Your task to perform on an android device: find which apps use the phone's location Image 0: 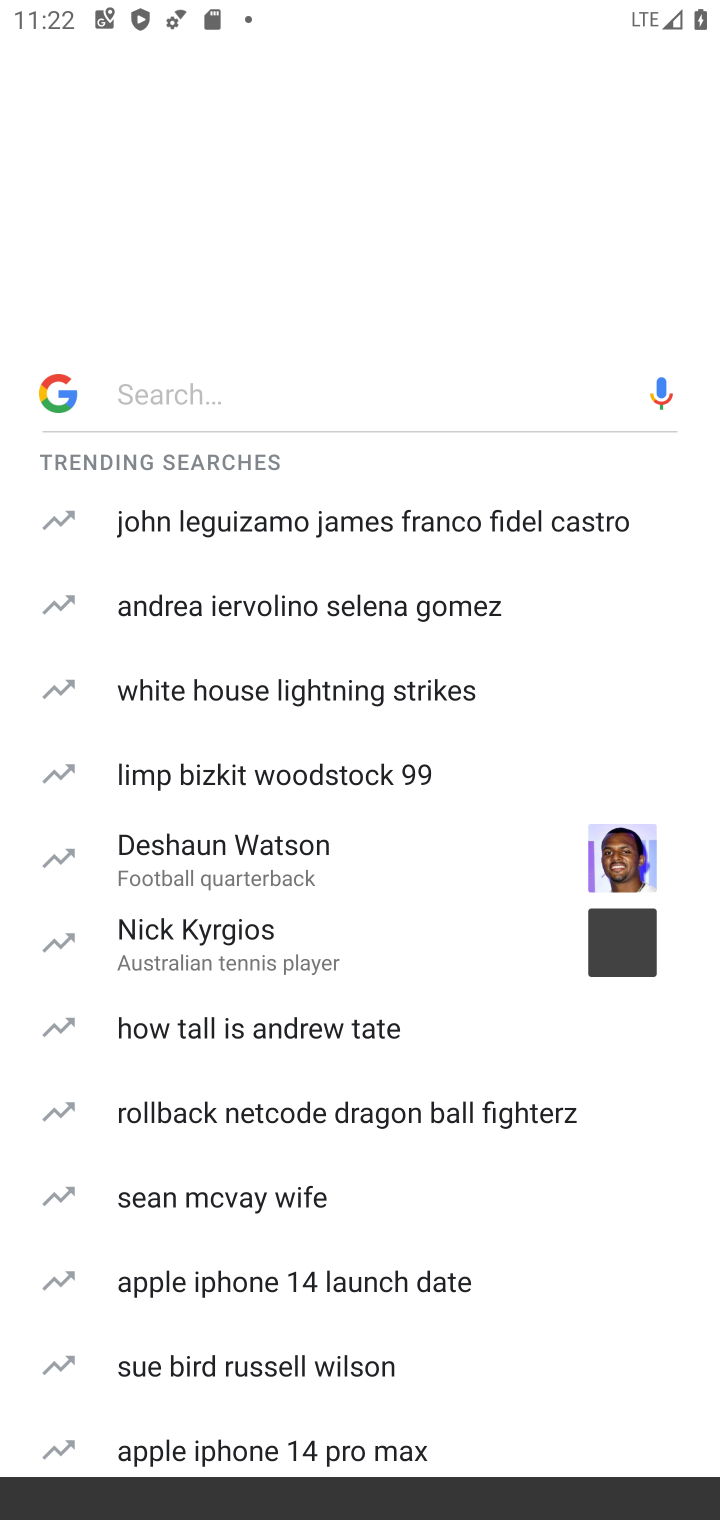
Step 0: press back button
Your task to perform on an android device: find which apps use the phone's location Image 1: 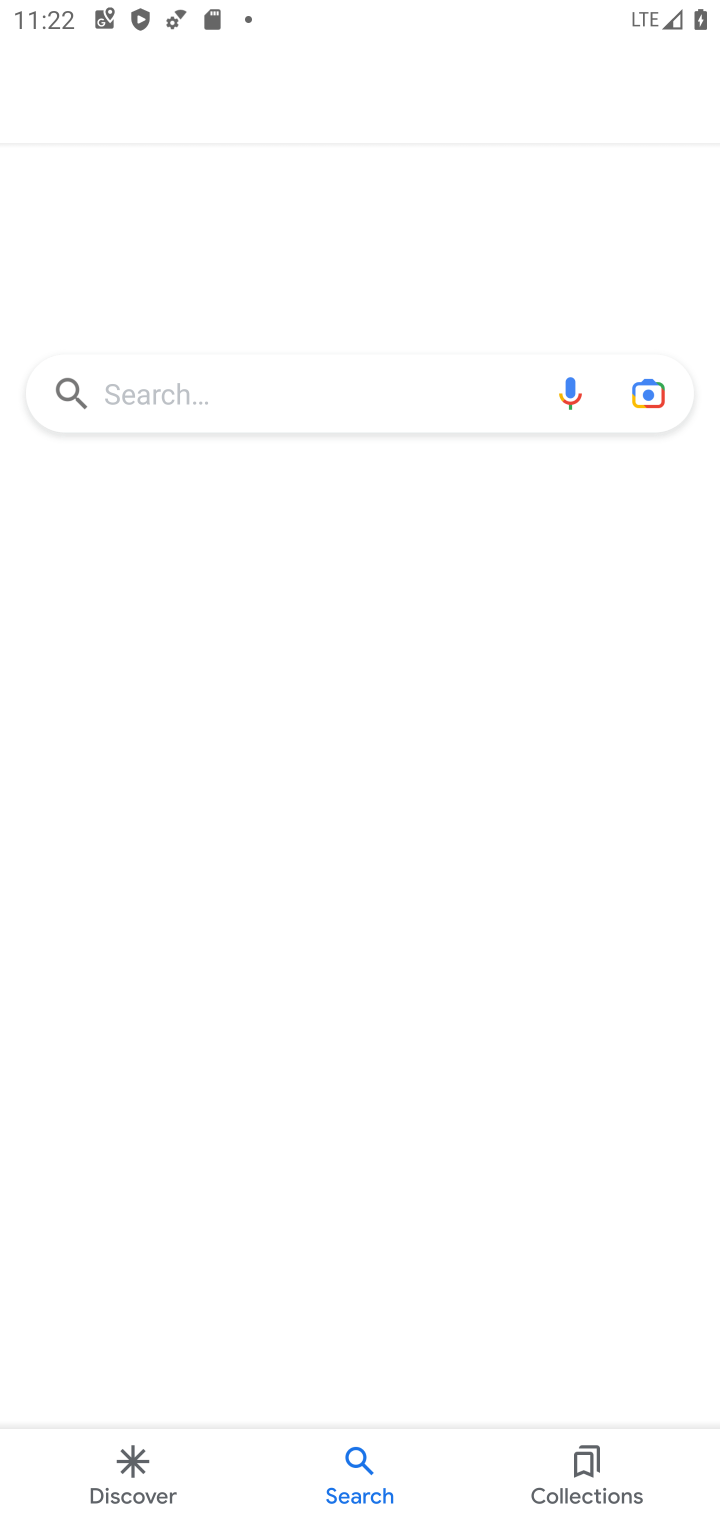
Step 1: press back button
Your task to perform on an android device: find which apps use the phone's location Image 2: 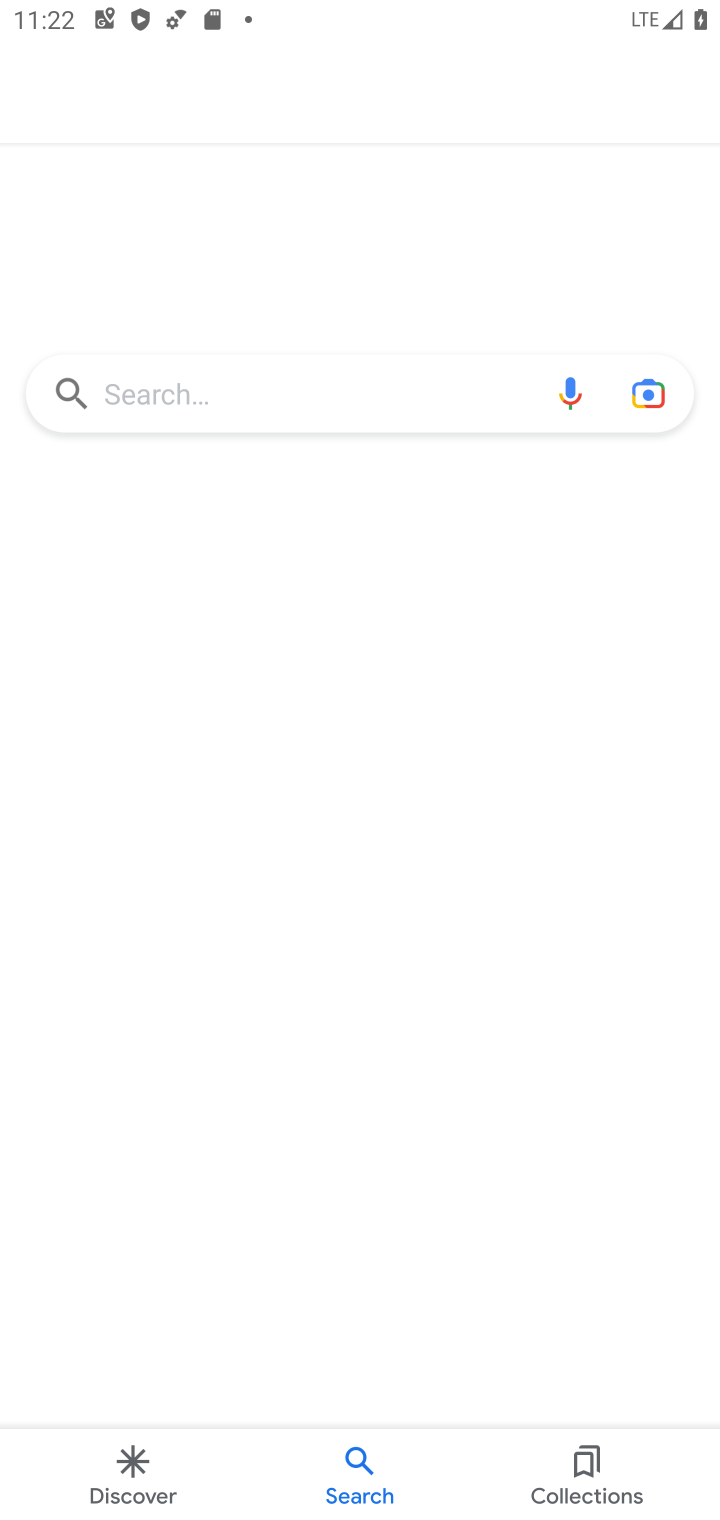
Step 2: press back button
Your task to perform on an android device: find which apps use the phone's location Image 3: 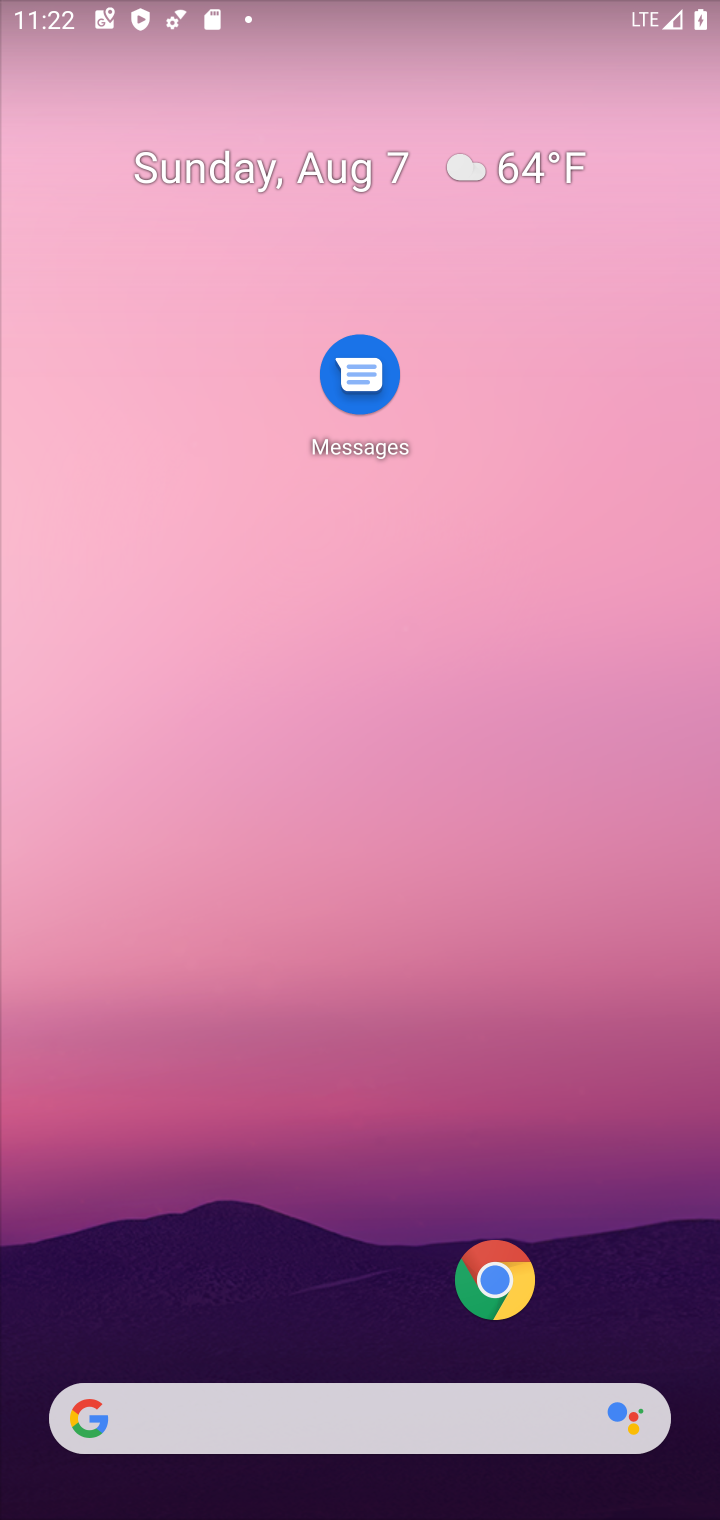
Step 3: drag from (187, 1253) to (380, 84)
Your task to perform on an android device: find which apps use the phone's location Image 4: 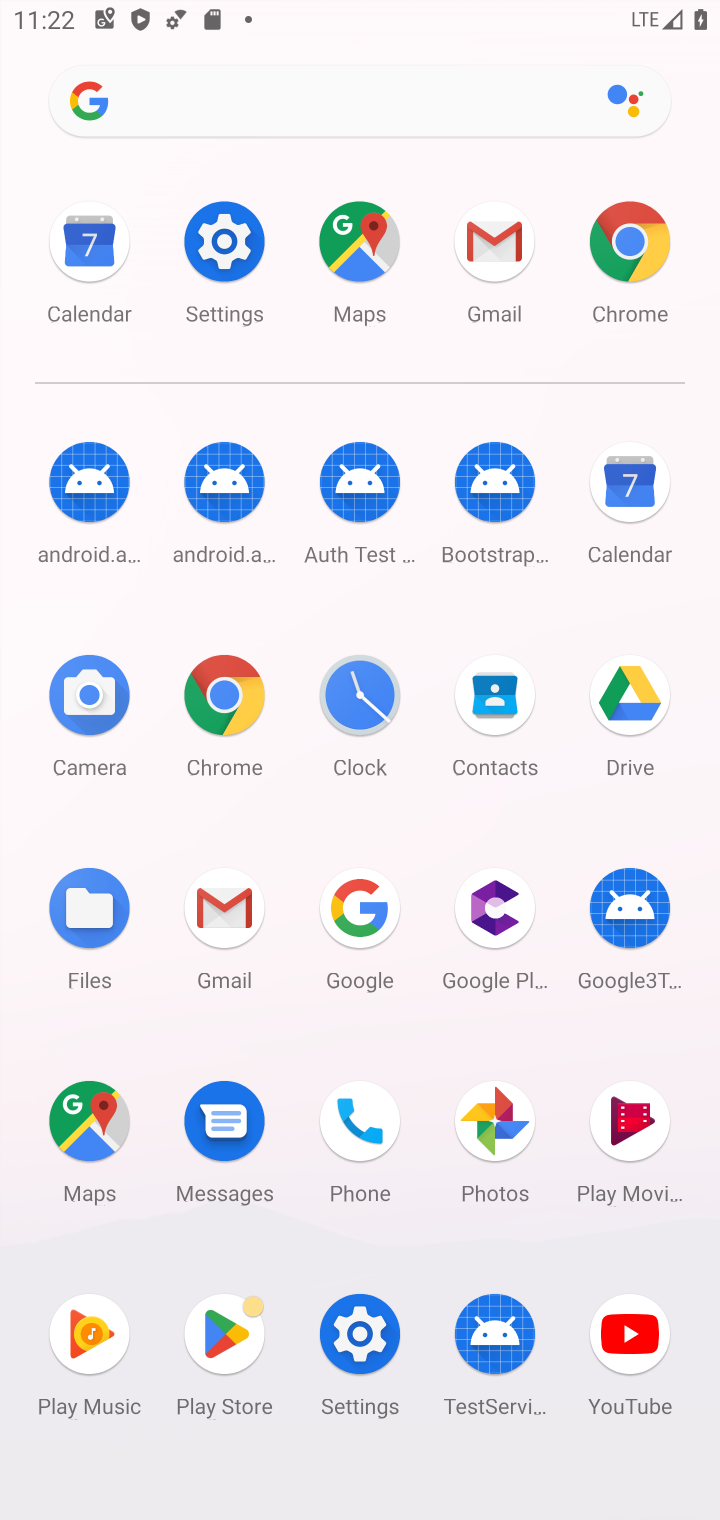
Step 4: click (252, 263)
Your task to perform on an android device: find which apps use the phone's location Image 5: 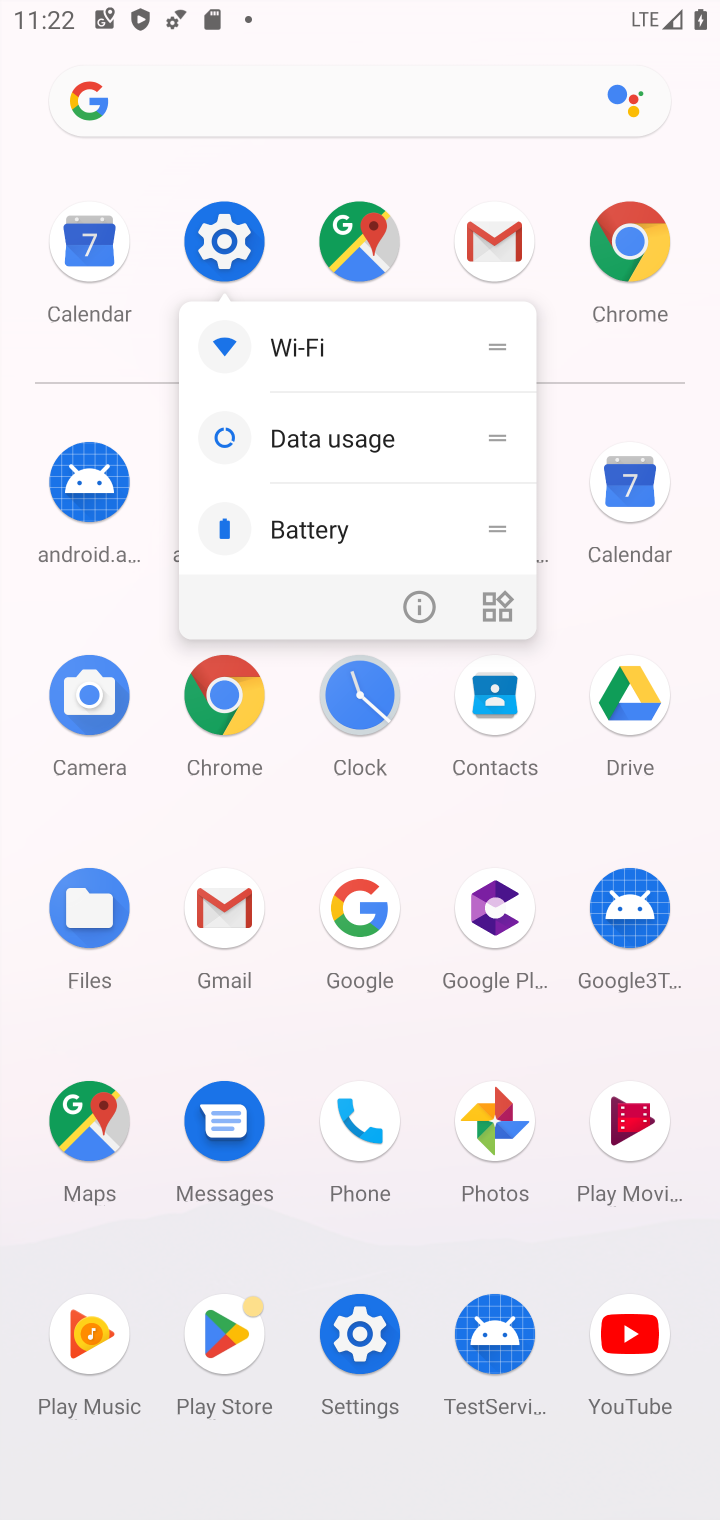
Step 5: click (225, 240)
Your task to perform on an android device: find which apps use the phone's location Image 6: 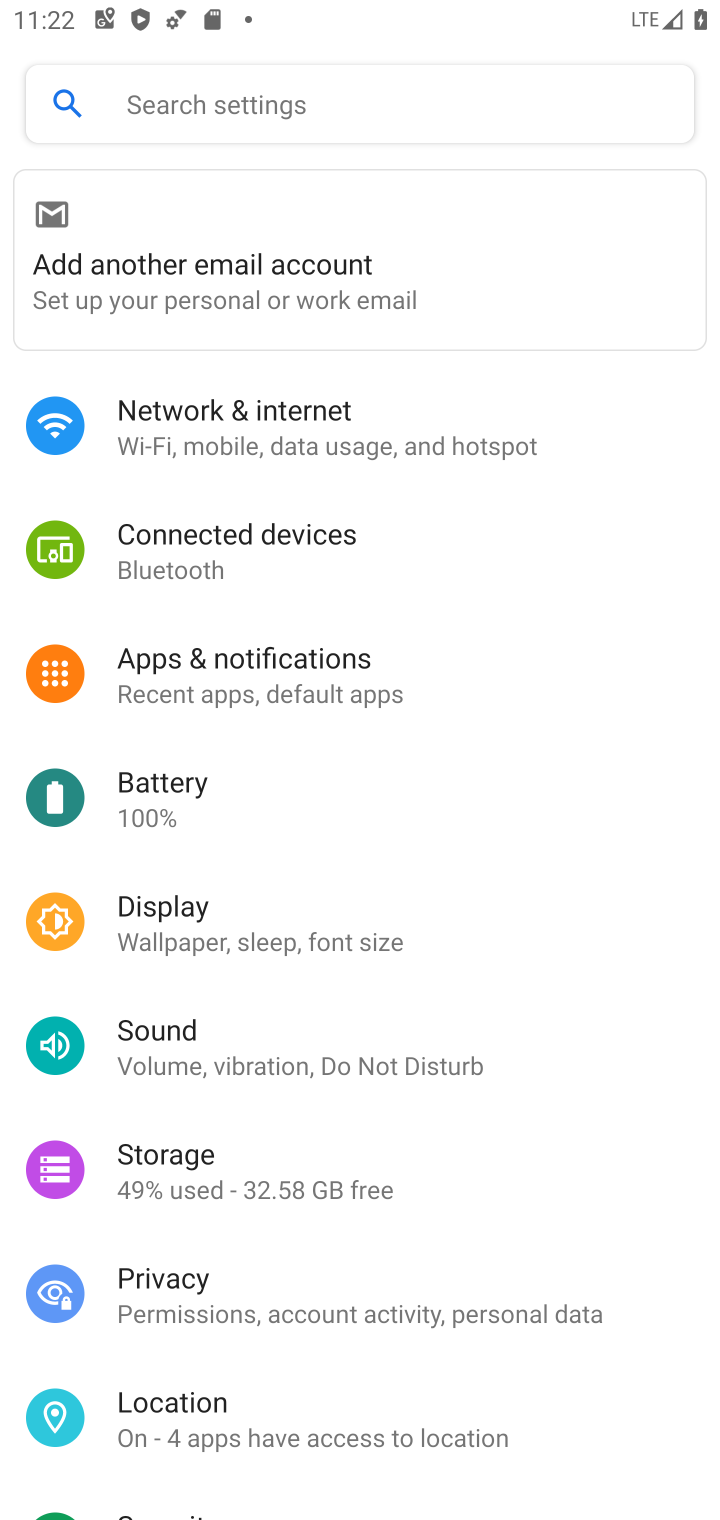
Step 6: click (233, 1403)
Your task to perform on an android device: find which apps use the phone's location Image 7: 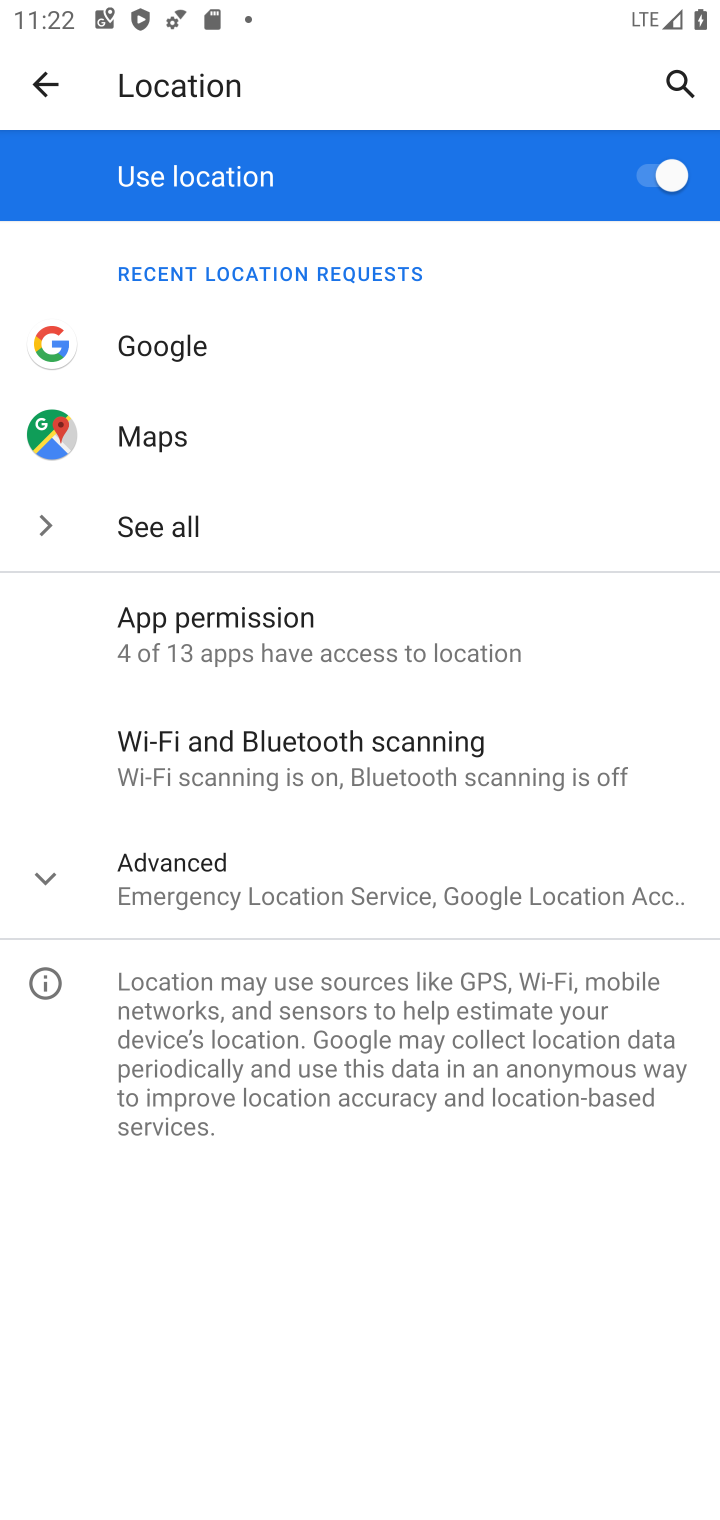
Step 7: click (247, 623)
Your task to perform on an android device: find which apps use the phone's location Image 8: 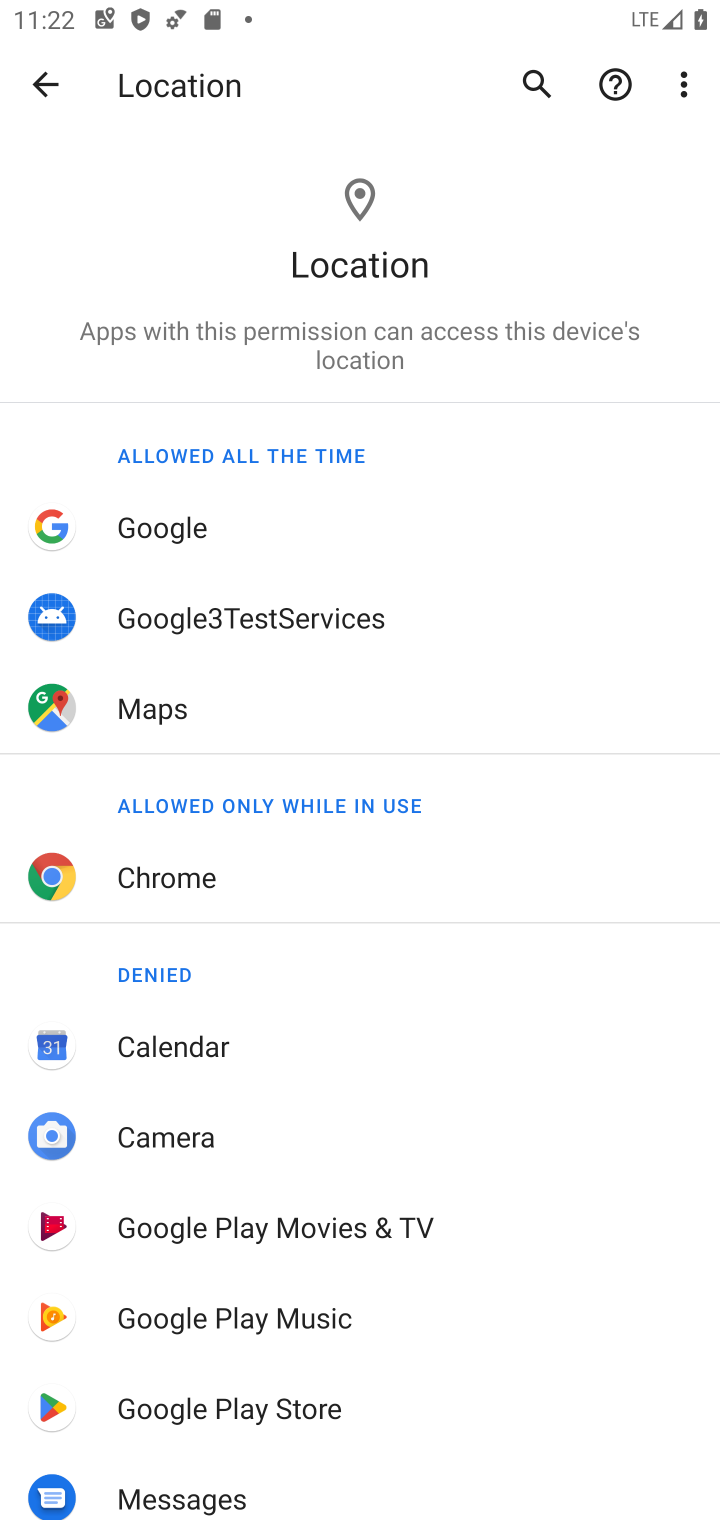
Step 8: task complete